Your task to perform on an android device: uninstall "Mercado Libre" Image 0: 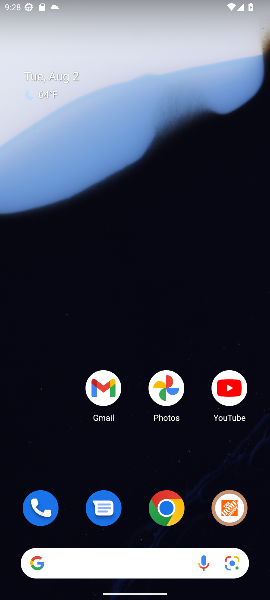
Step 0: drag from (161, 508) to (202, 165)
Your task to perform on an android device: uninstall "Mercado Libre" Image 1: 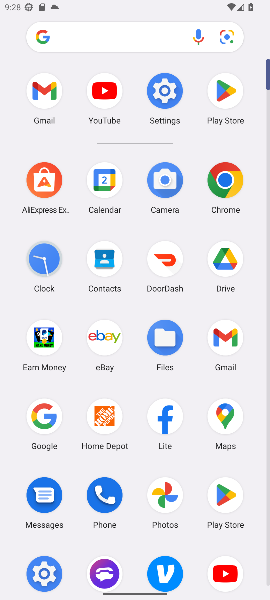
Step 1: click (230, 101)
Your task to perform on an android device: uninstall "Mercado Libre" Image 2: 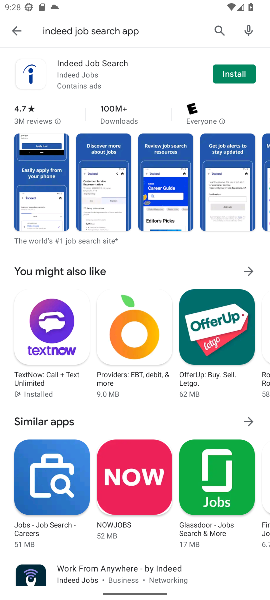
Step 2: click (19, 35)
Your task to perform on an android device: uninstall "Mercado Libre" Image 3: 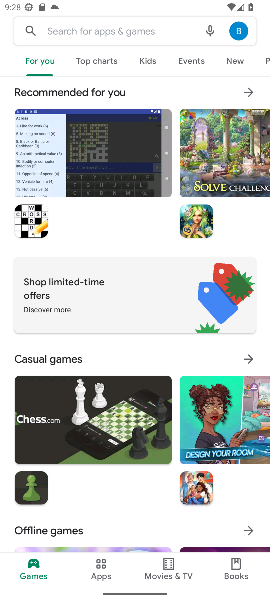
Step 3: click (65, 25)
Your task to perform on an android device: uninstall "Mercado Libre" Image 4: 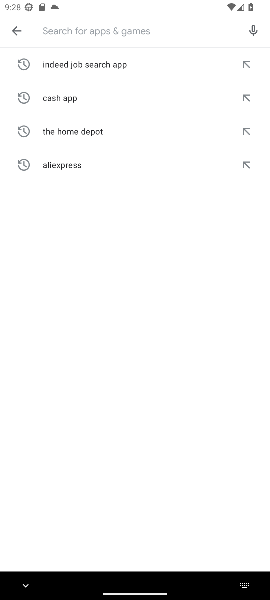
Step 4: type "Mercado Libre"
Your task to perform on an android device: uninstall "Mercado Libre" Image 5: 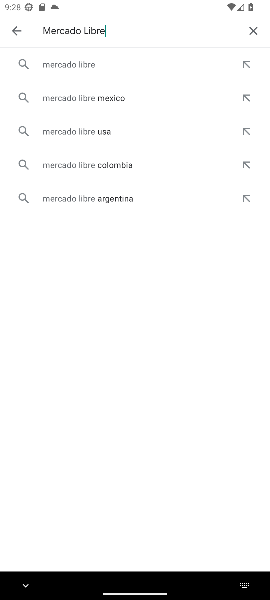
Step 5: click (93, 63)
Your task to perform on an android device: uninstall "Mercado Libre" Image 6: 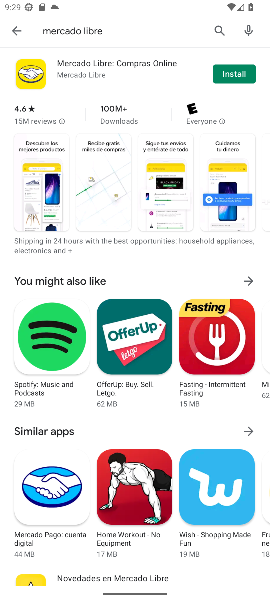
Step 6: task complete